Your task to perform on an android device: Search for Italian restaurants on Maps Image 0: 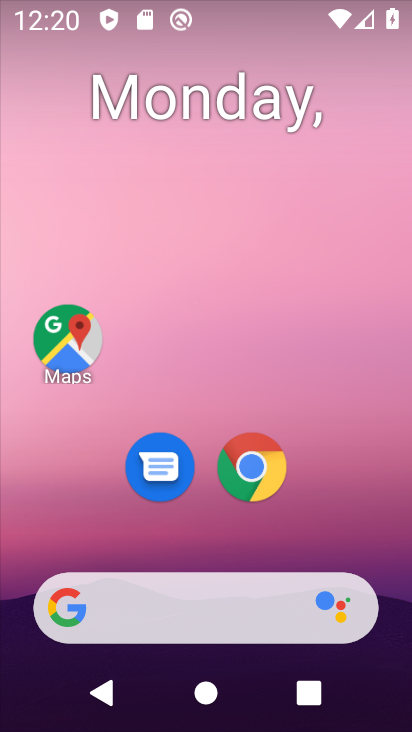
Step 0: click (63, 335)
Your task to perform on an android device: Search for Italian restaurants on Maps Image 1: 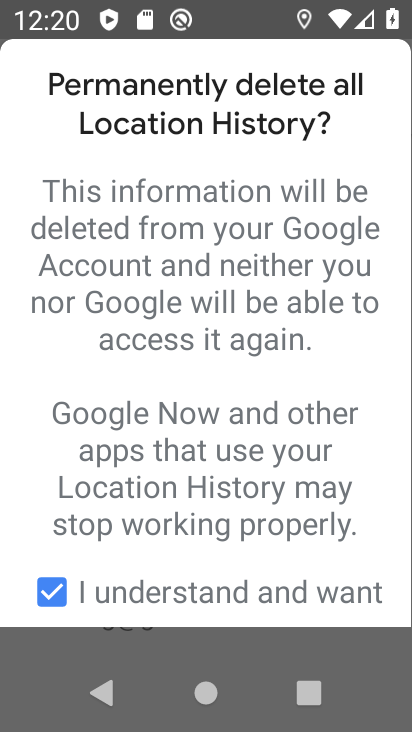
Step 1: press home button
Your task to perform on an android device: Search for Italian restaurants on Maps Image 2: 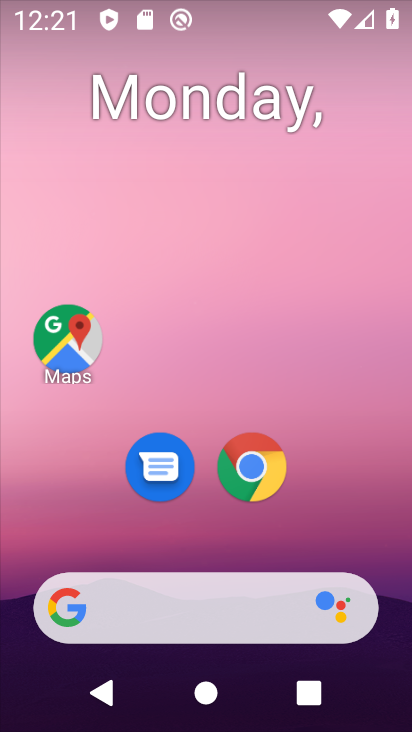
Step 2: click (67, 339)
Your task to perform on an android device: Search for Italian restaurants on Maps Image 3: 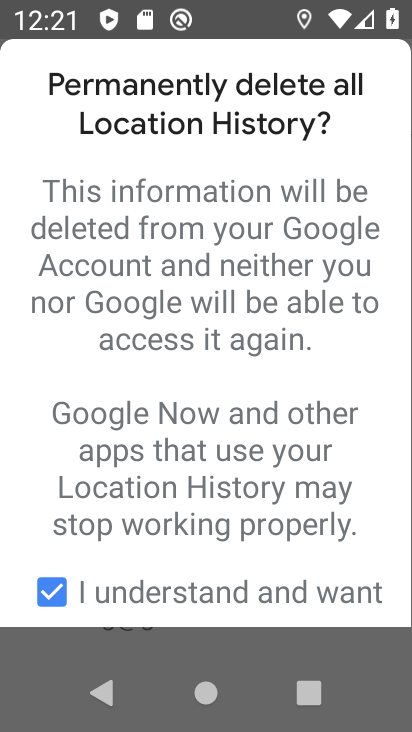
Step 3: press back button
Your task to perform on an android device: Search for Italian restaurants on Maps Image 4: 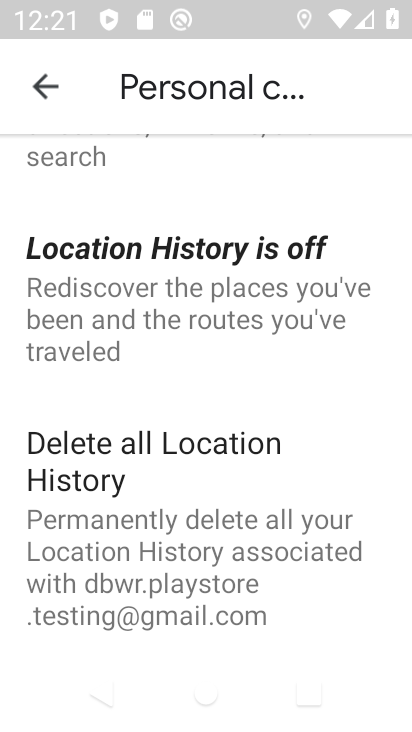
Step 4: press back button
Your task to perform on an android device: Search for Italian restaurants on Maps Image 5: 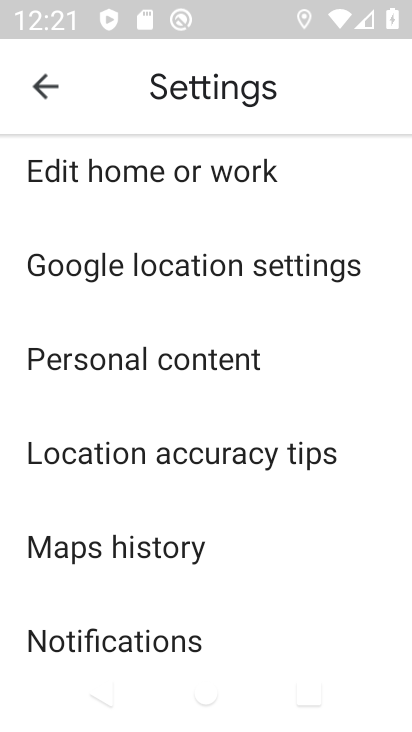
Step 5: press back button
Your task to perform on an android device: Search for Italian restaurants on Maps Image 6: 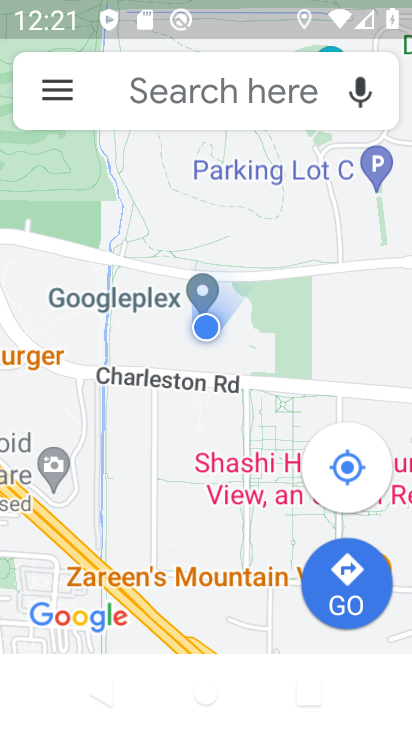
Step 6: click (62, 92)
Your task to perform on an android device: Search for Italian restaurants on Maps Image 7: 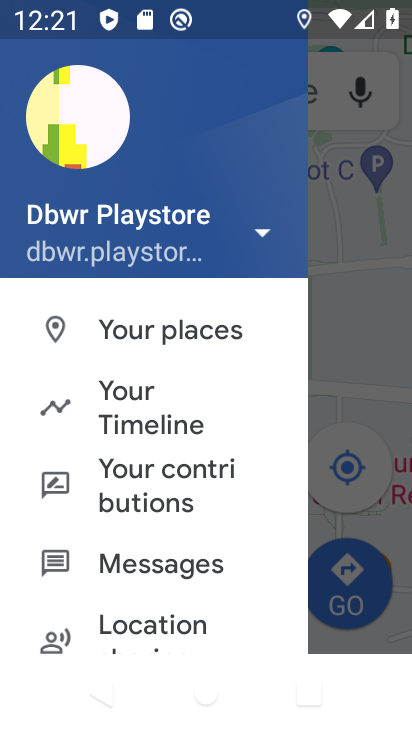
Step 7: drag from (236, 618) to (258, 87)
Your task to perform on an android device: Search for Italian restaurants on Maps Image 8: 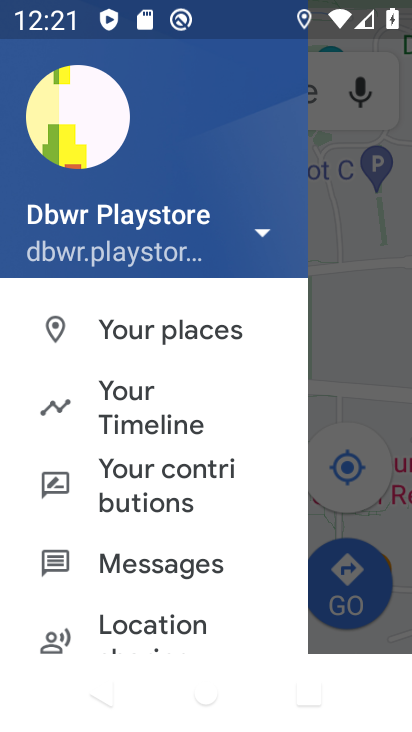
Step 8: click (376, 289)
Your task to perform on an android device: Search for Italian restaurants on Maps Image 9: 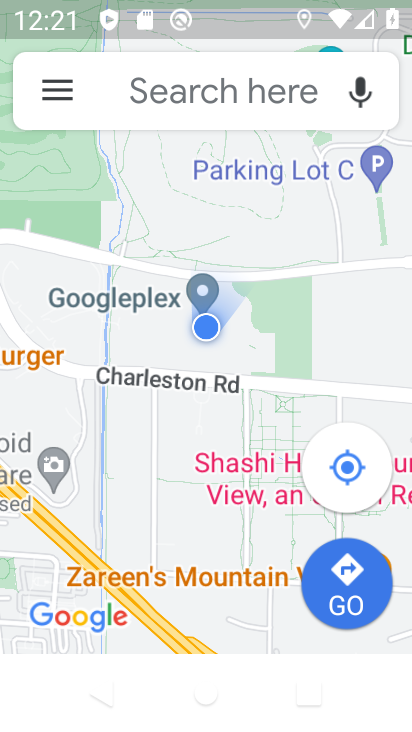
Step 9: click (122, 72)
Your task to perform on an android device: Search for Italian restaurants on Maps Image 10: 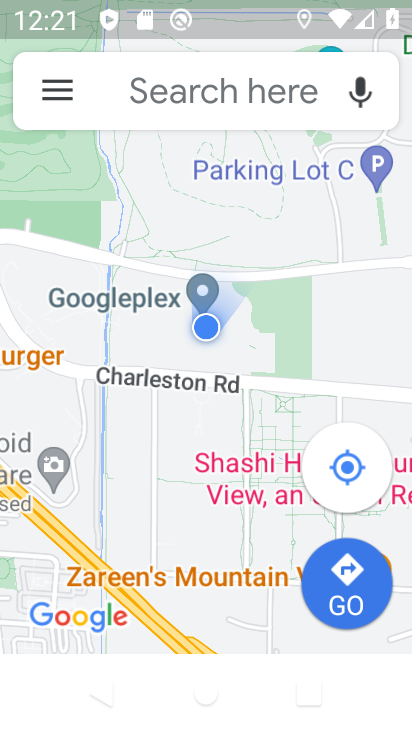
Step 10: click (150, 88)
Your task to perform on an android device: Search for Italian restaurants on Maps Image 11: 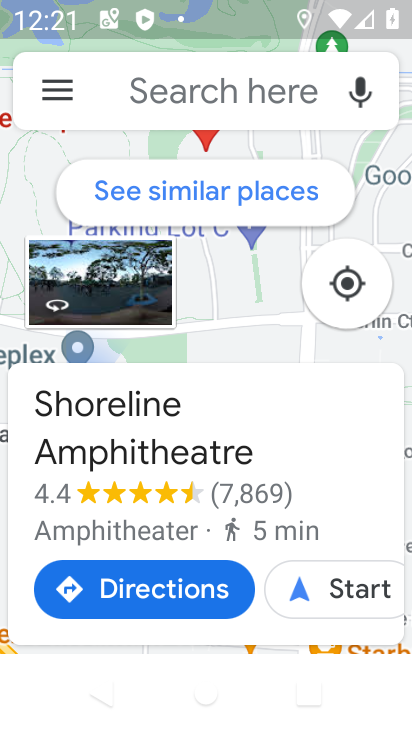
Step 11: click (150, 88)
Your task to perform on an android device: Search for Italian restaurants on Maps Image 12: 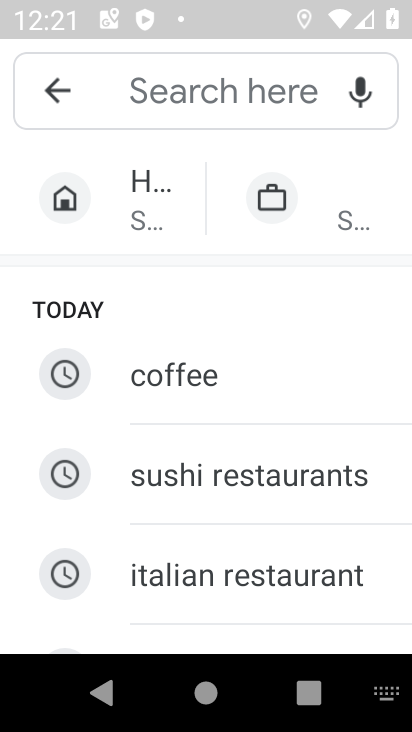
Step 12: type "italian restaurants"
Your task to perform on an android device: Search for Italian restaurants on Maps Image 13: 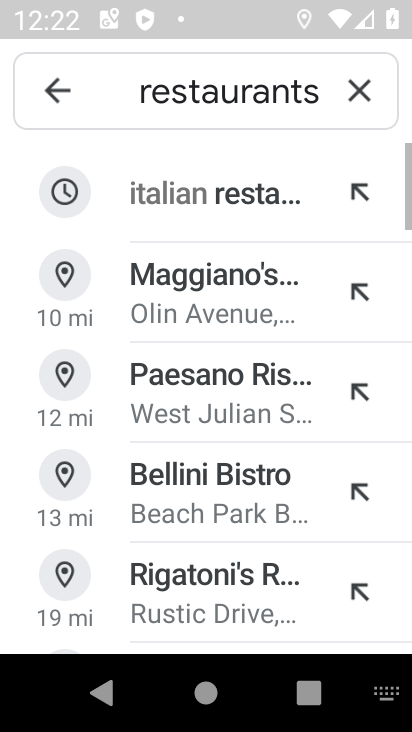
Step 13: click (182, 198)
Your task to perform on an android device: Search for Italian restaurants on Maps Image 14: 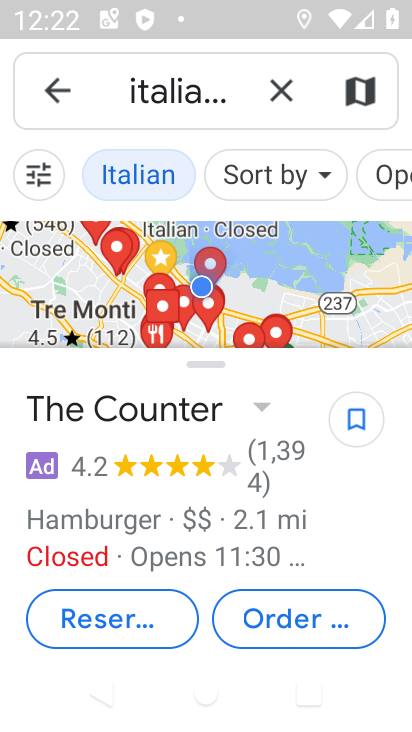
Step 14: task complete